Your task to perform on an android device: Open Android settings Image 0: 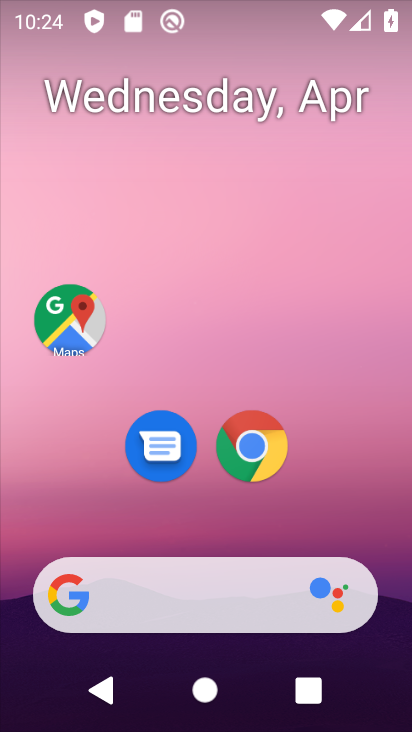
Step 0: drag from (209, 521) to (237, 11)
Your task to perform on an android device: Open Android settings Image 1: 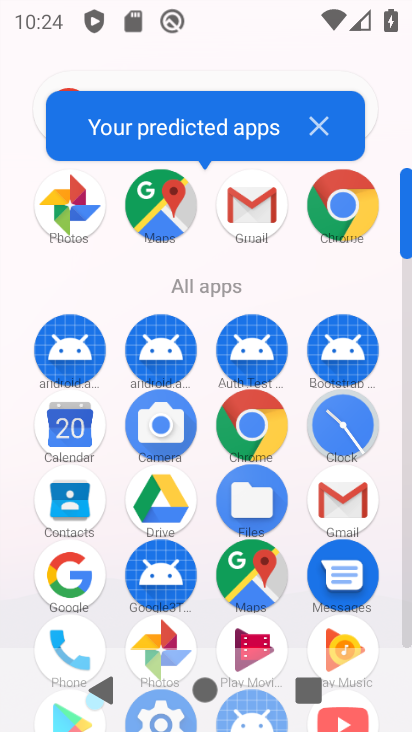
Step 1: drag from (205, 546) to (177, 34)
Your task to perform on an android device: Open Android settings Image 2: 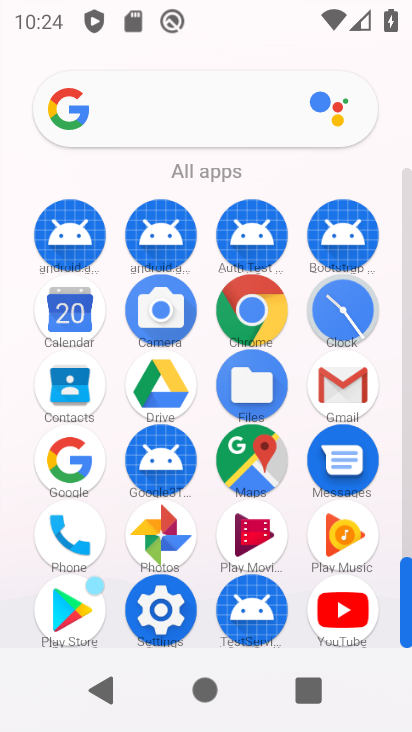
Step 2: click (164, 593)
Your task to perform on an android device: Open Android settings Image 3: 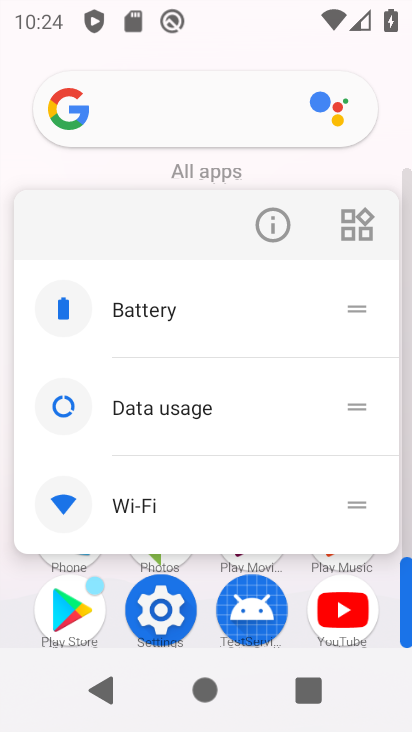
Step 3: click (147, 611)
Your task to perform on an android device: Open Android settings Image 4: 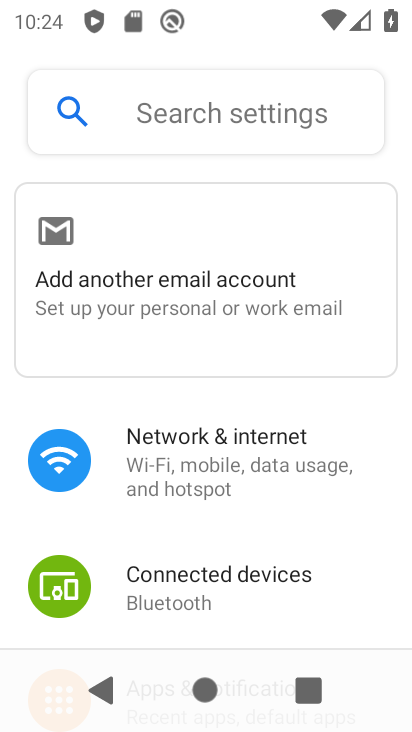
Step 4: task complete